Your task to perform on an android device: What's the weather? Image 0: 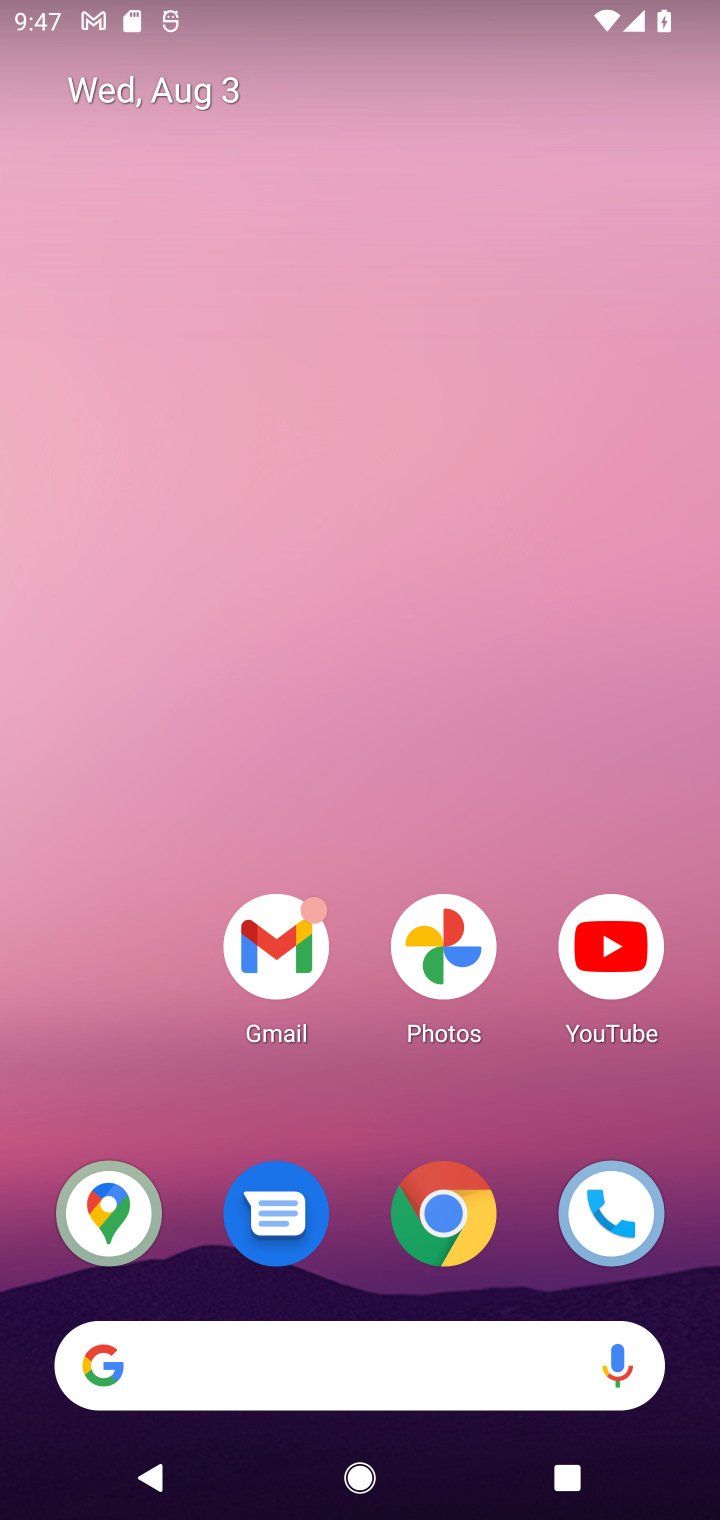
Step 0: click (328, 1324)
Your task to perform on an android device: What's the weather? Image 1: 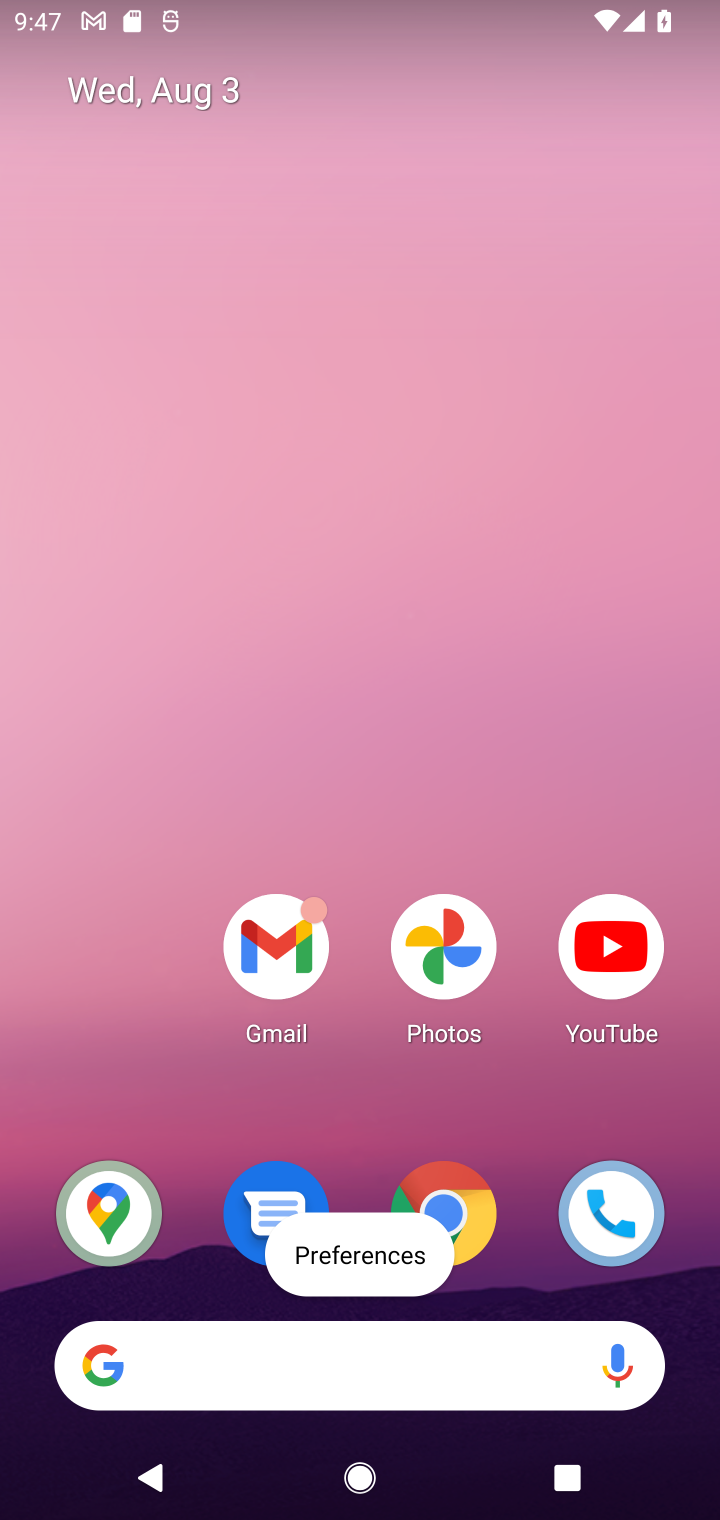
Step 1: click (368, 1350)
Your task to perform on an android device: What's the weather? Image 2: 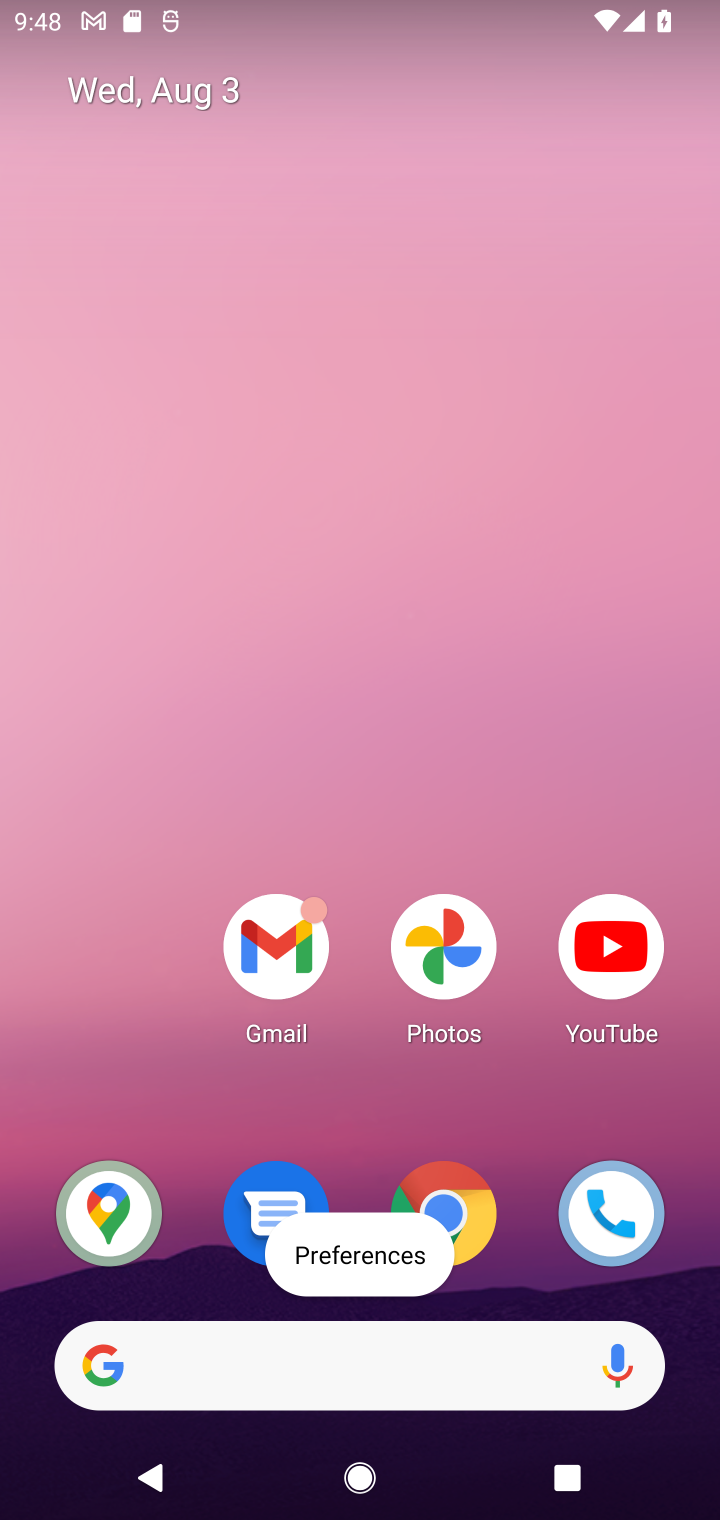
Step 2: click (374, 1358)
Your task to perform on an android device: What's the weather? Image 3: 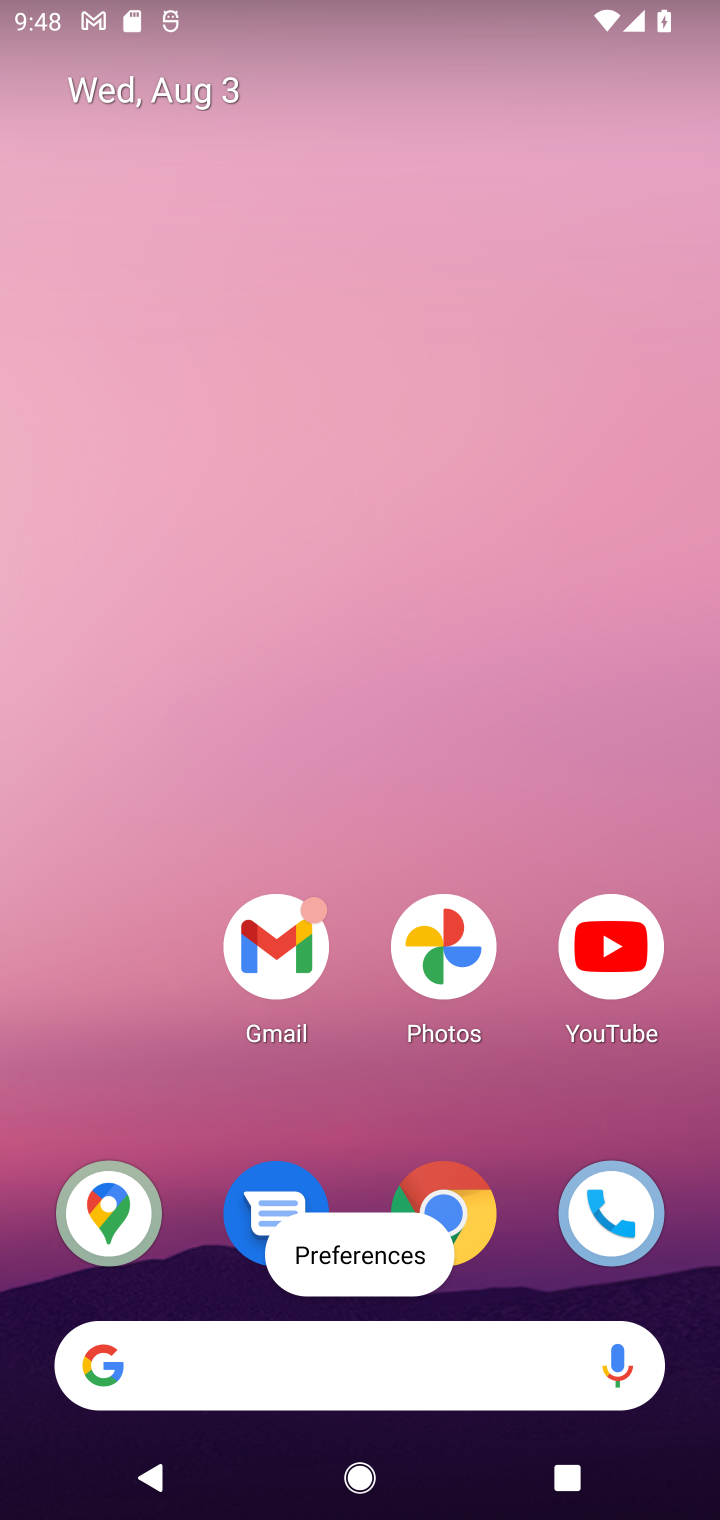
Step 3: click (208, 1362)
Your task to perform on an android device: What's the weather? Image 4: 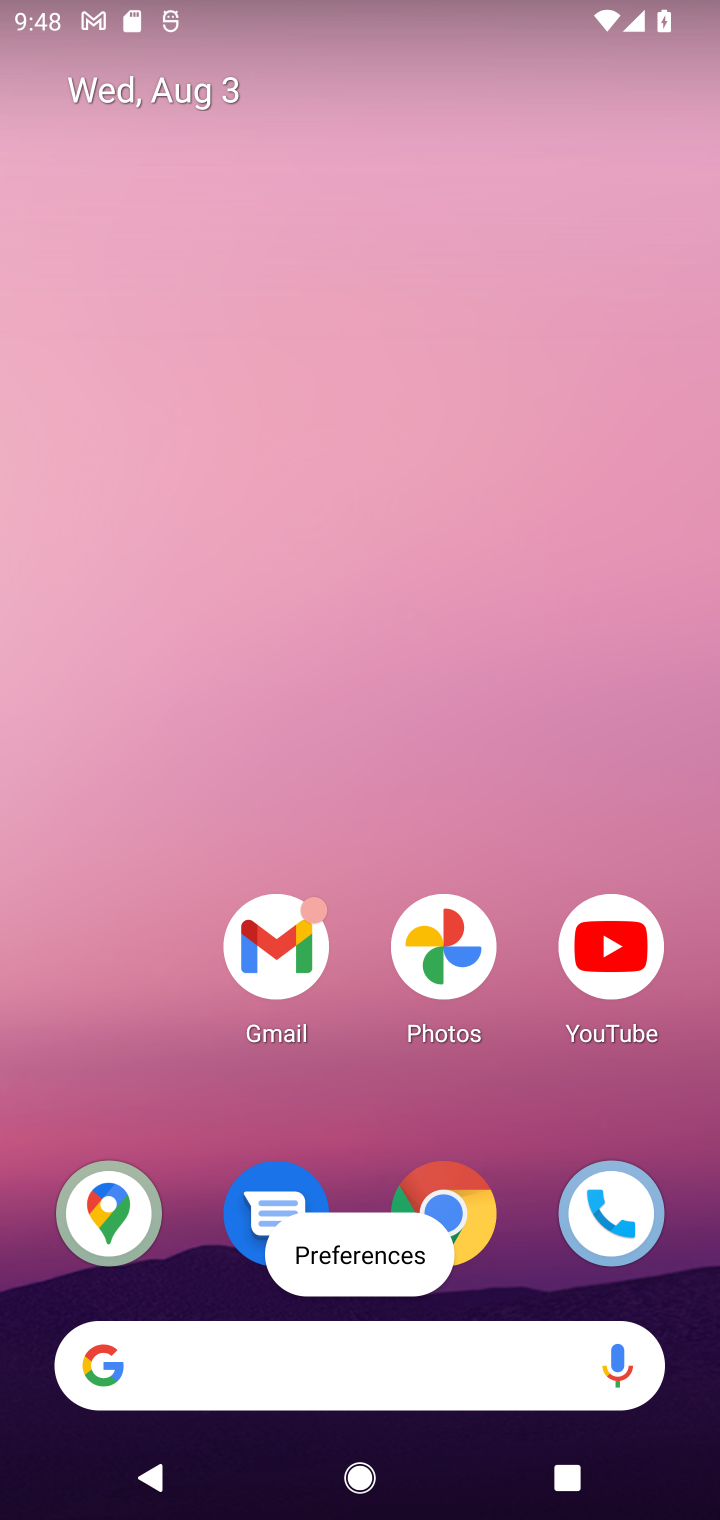
Step 4: click (273, 1375)
Your task to perform on an android device: What's the weather? Image 5: 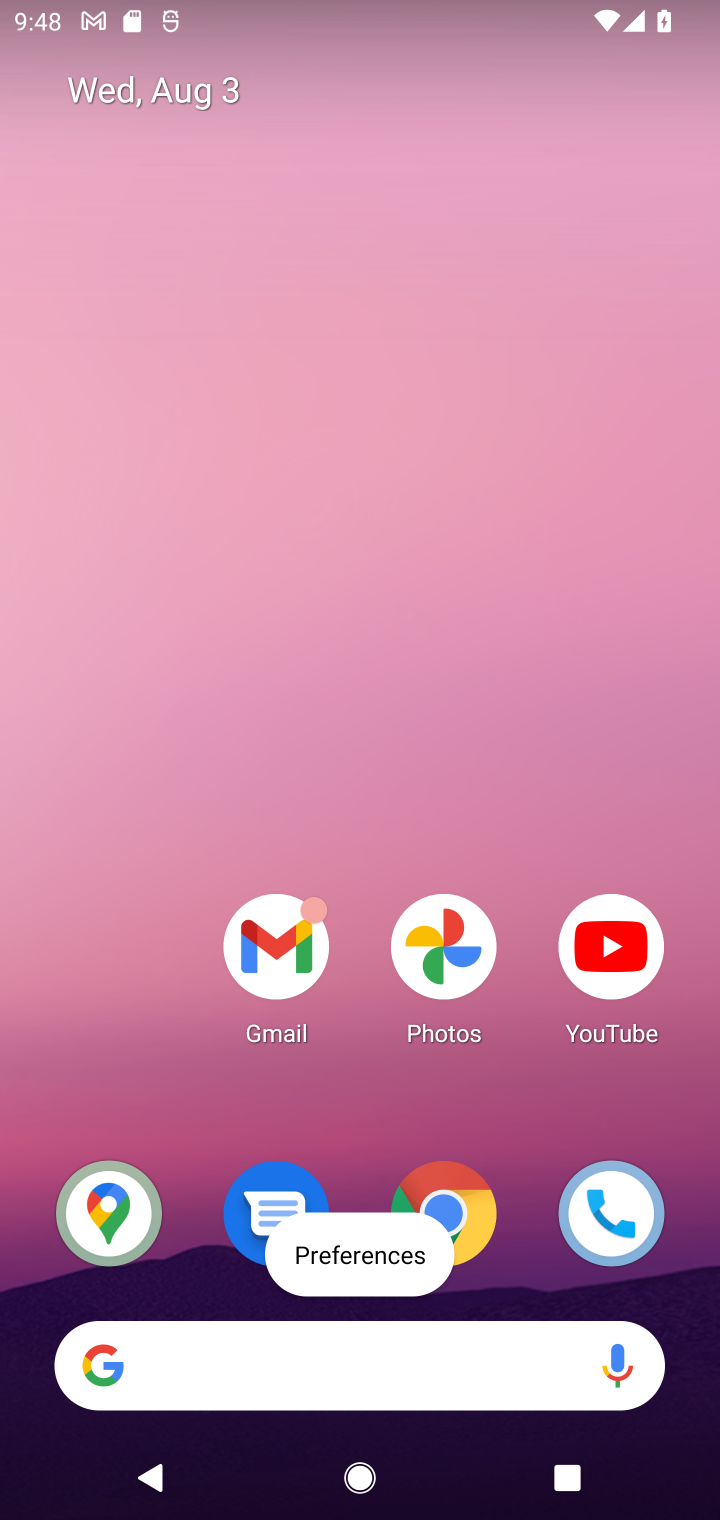
Step 5: click (300, 1372)
Your task to perform on an android device: What's the weather? Image 6: 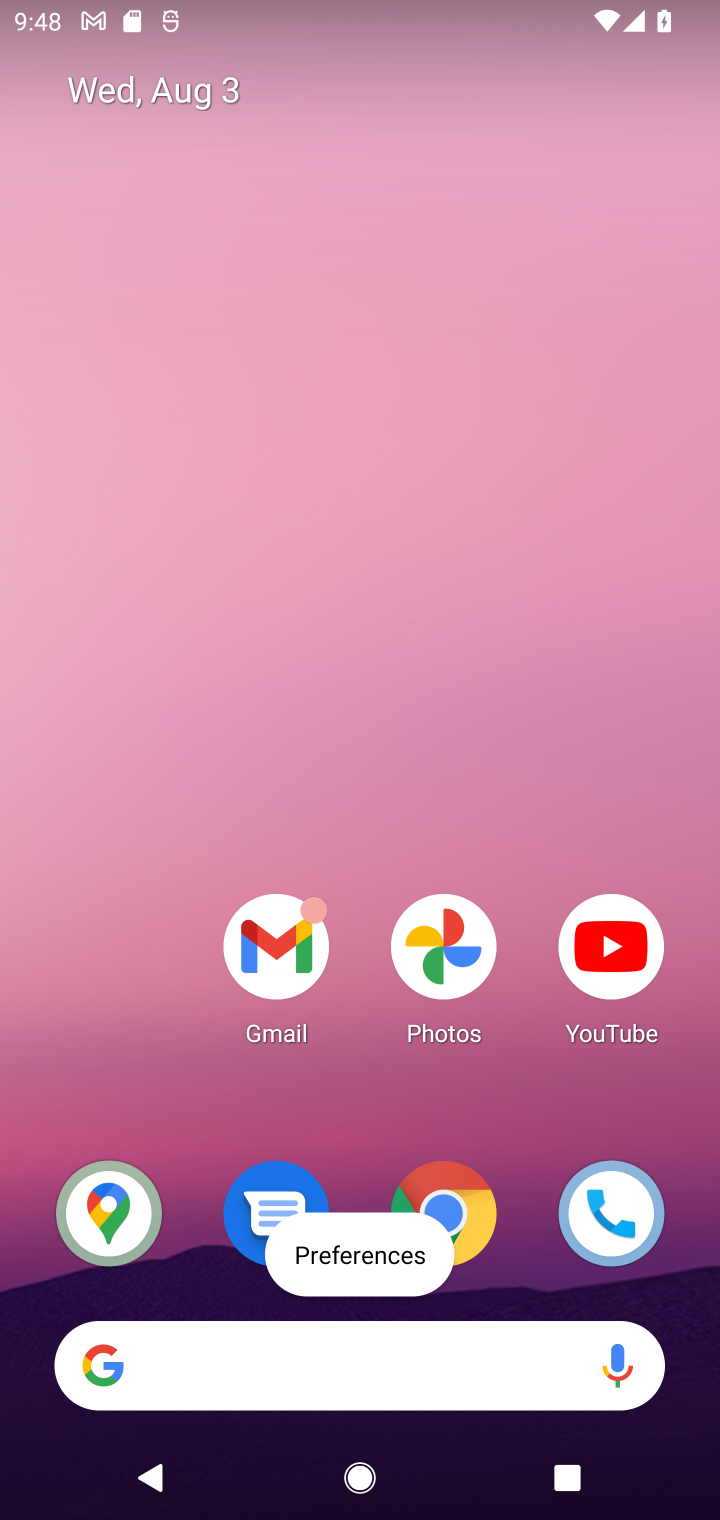
Step 6: click (291, 1374)
Your task to perform on an android device: What's the weather? Image 7: 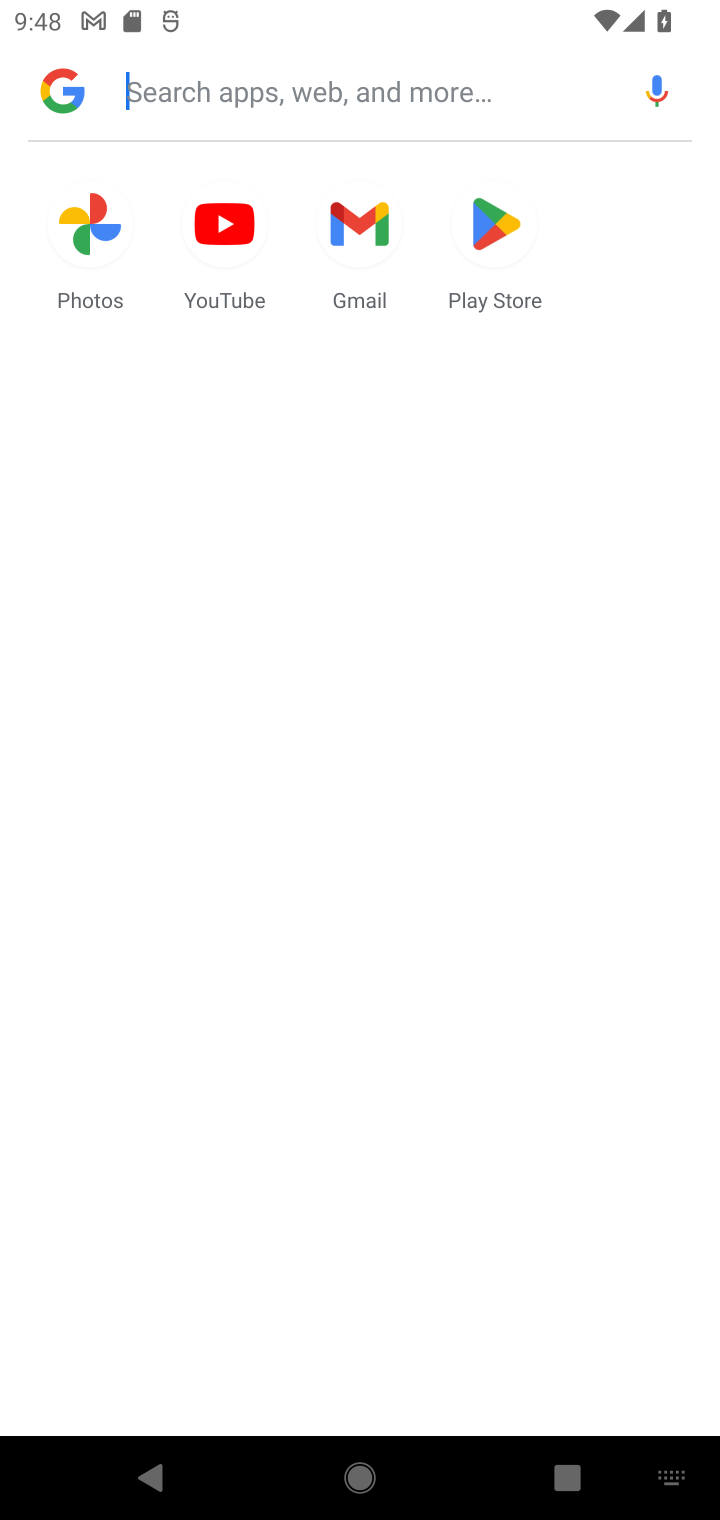
Step 7: type "weather"
Your task to perform on an android device: What's the weather? Image 8: 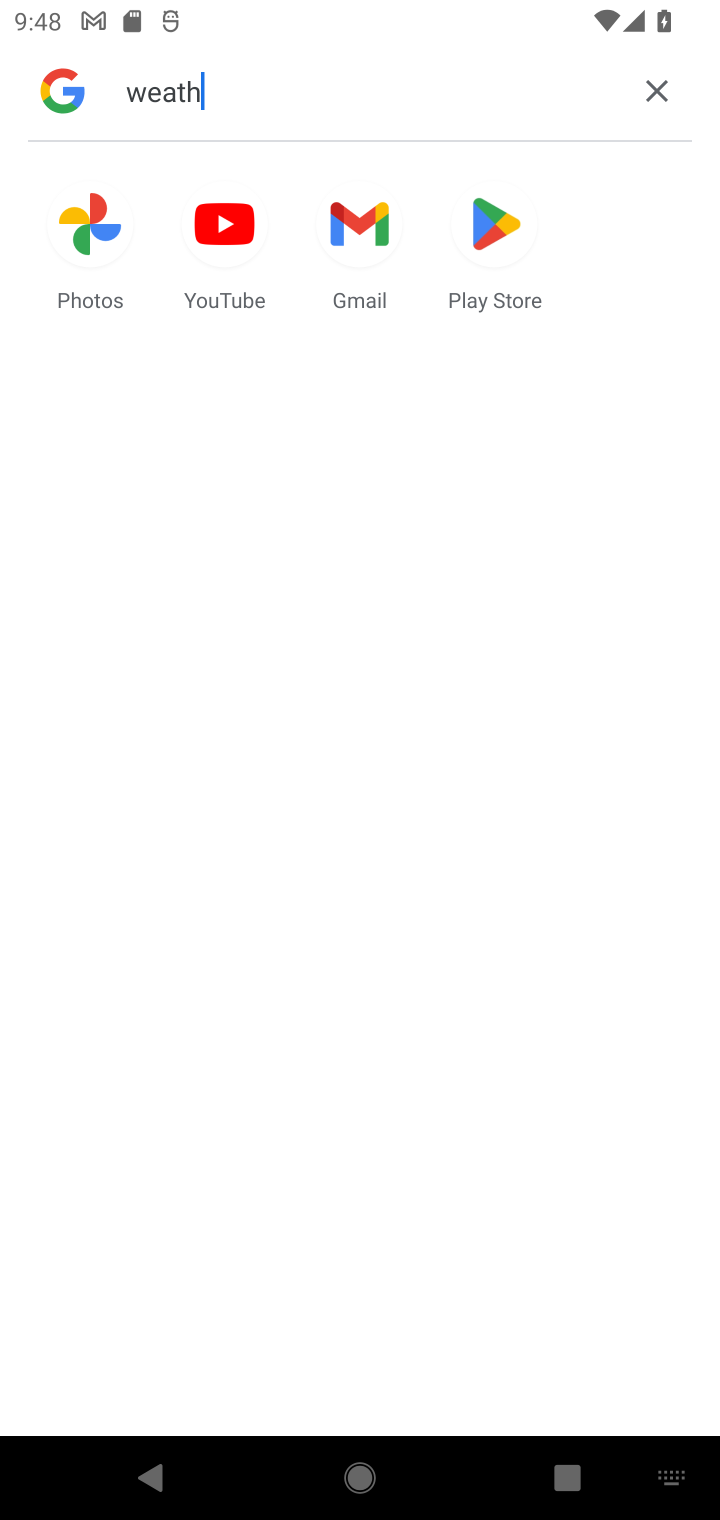
Step 8: type ""
Your task to perform on an android device: What's the weather? Image 9: 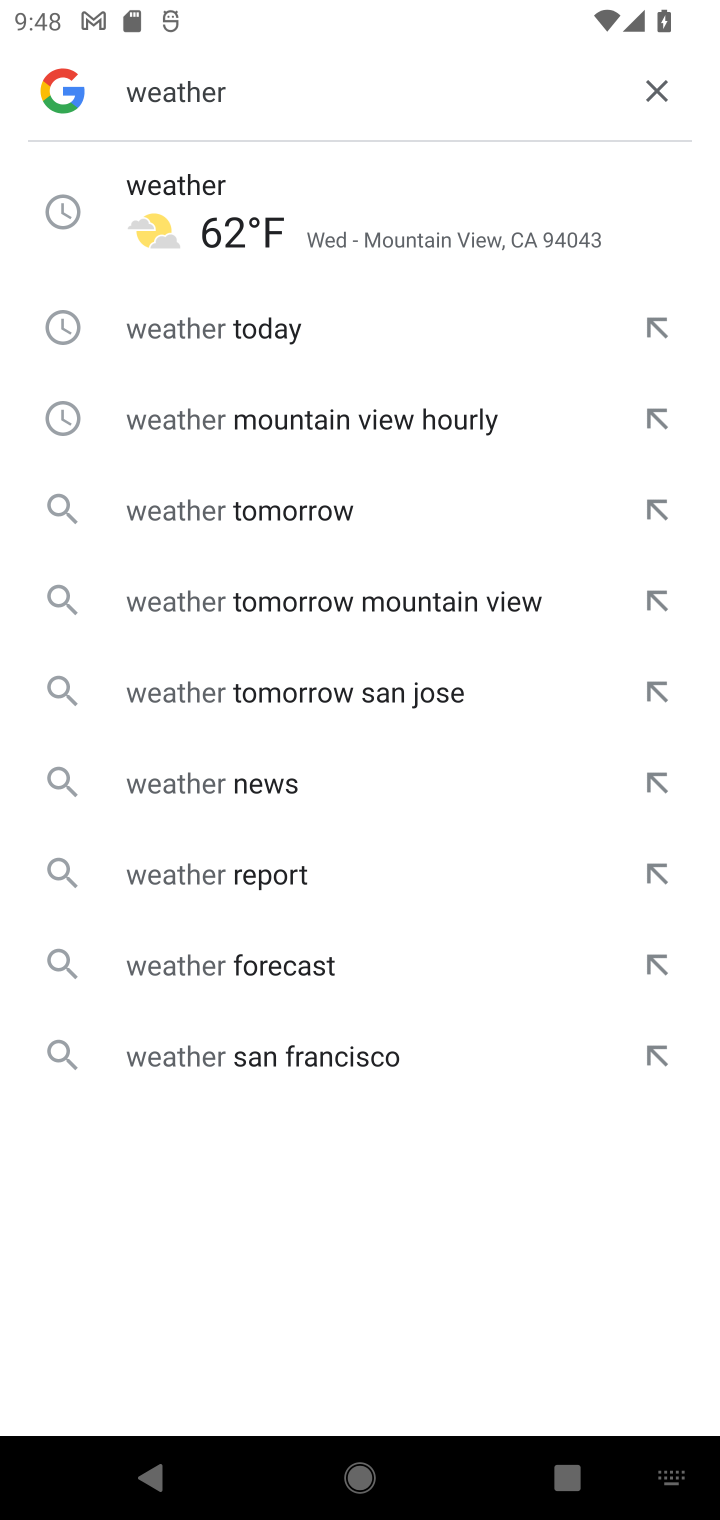
Step 9: click (154, 190)
Your task to perform on an android device: What's the weather? Image 10: 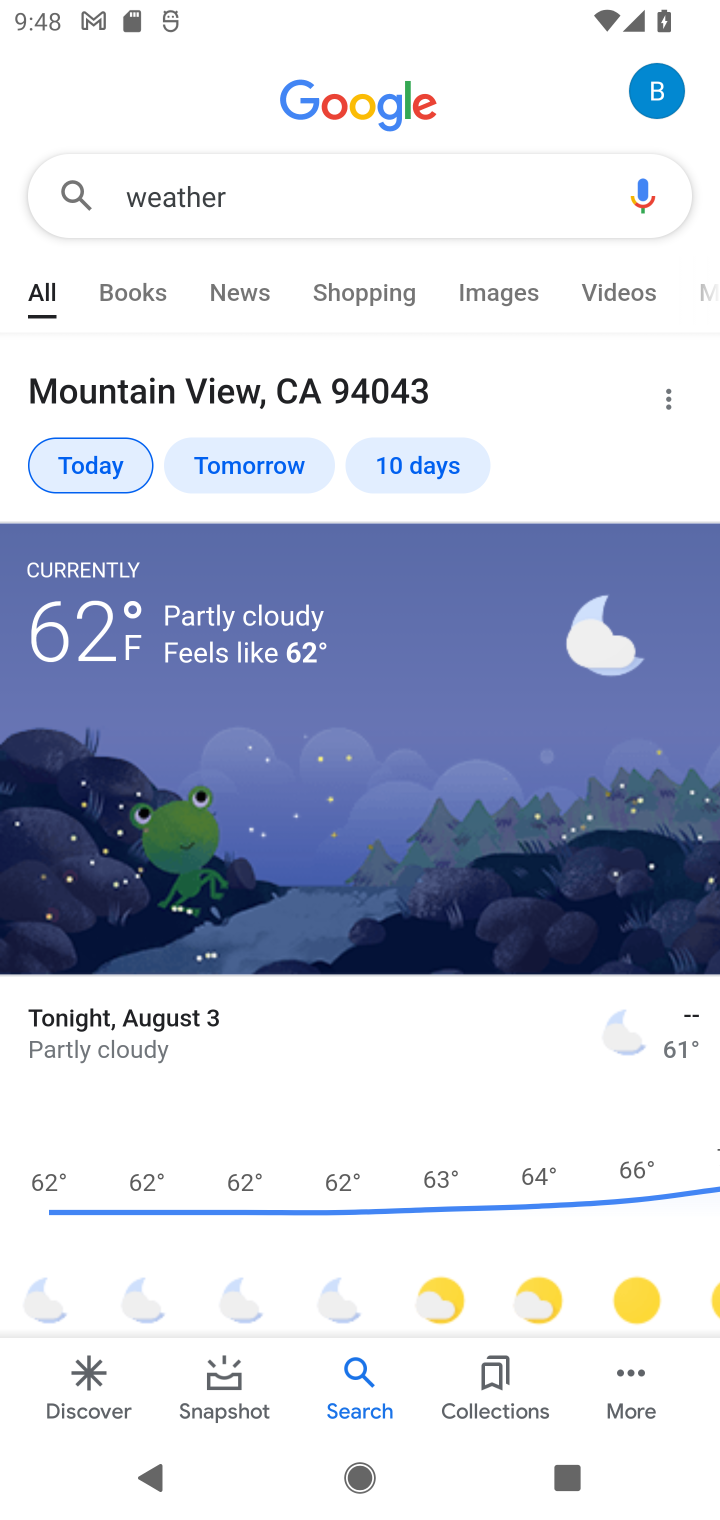
Step 10: task complete